Your task to perform on an android device: Open settings Image 0: 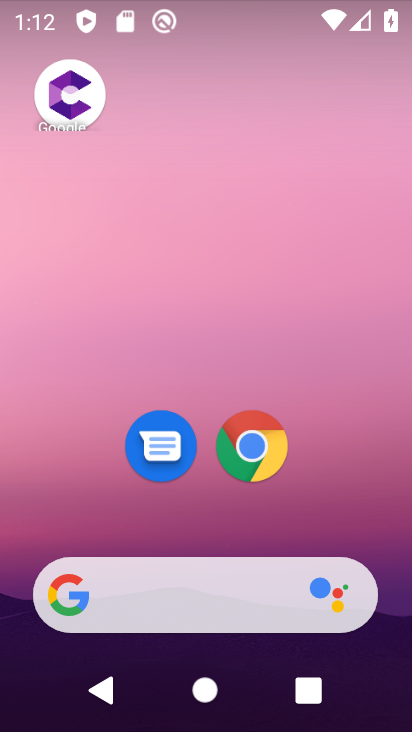
Step 0: drag from (194, 533) to (273, 51)
Your task to perform on an android device: Open settings Image 1: 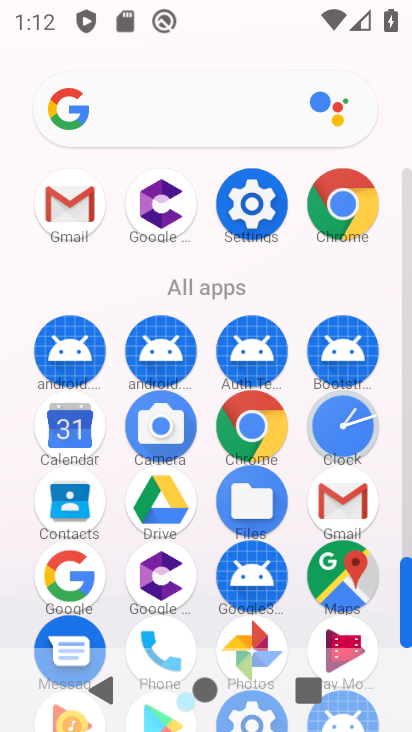
Step 1: click (247, 193)
Your task to perform on an android device: Open settings Image 2: 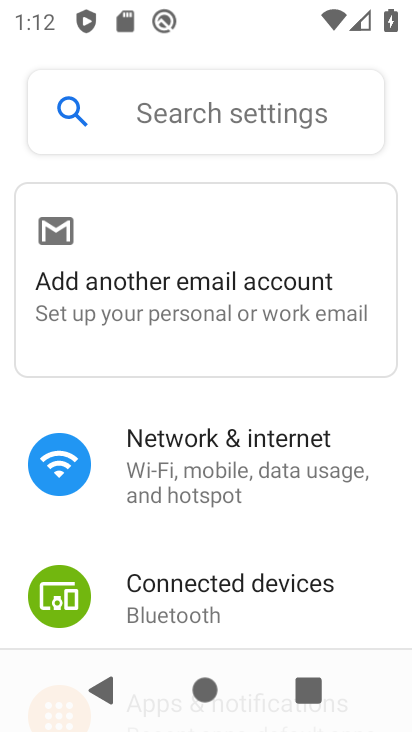
Step 2: task complete